Your task to perform on an android device: toggle wifi Image 0: 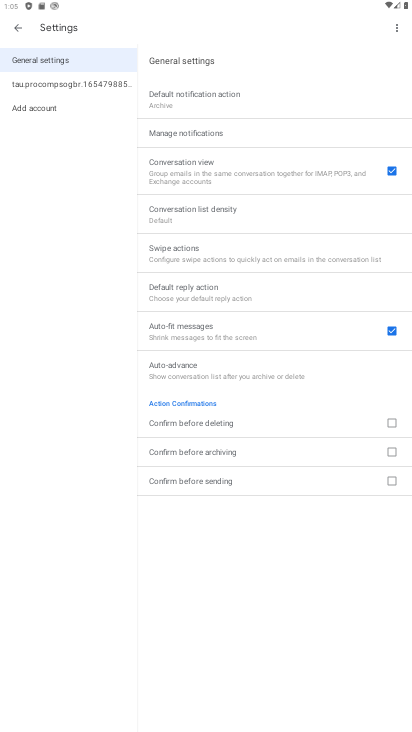
Step 0: press home button
Your task to perform on an android device: toggle wifi Image 1: 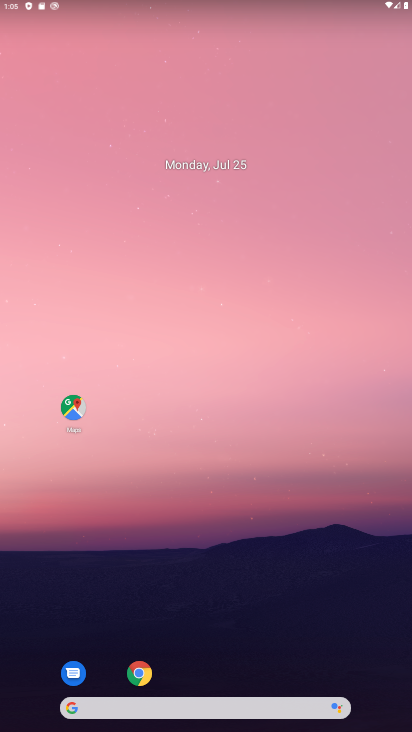
Step 1: drag from (372, 679) to (311, 177)
Your task to perform on an android device: toggle wifi Image 2: 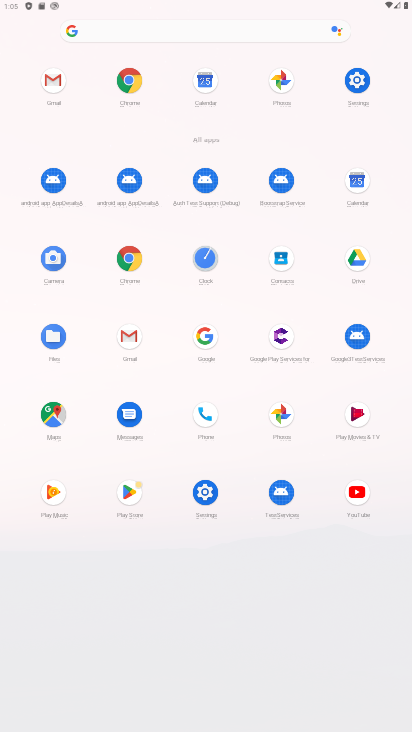
Step 2: click (203, 492)
Your task to perform on an android device: toggle wifi Image 3: 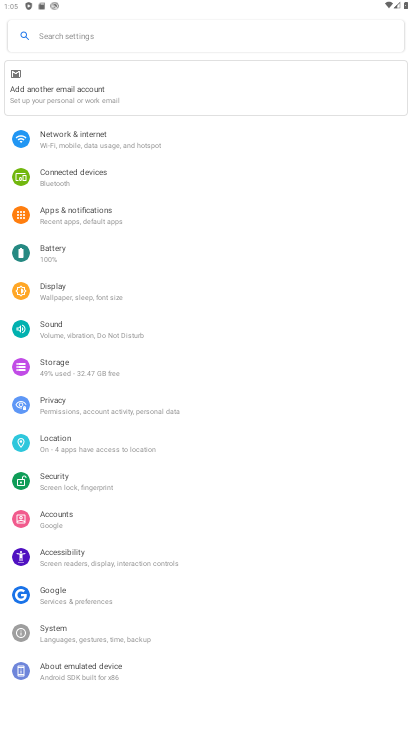
Step 3: click (60, 134)
Your task to perform on an android device: toggle wifi Image 4: 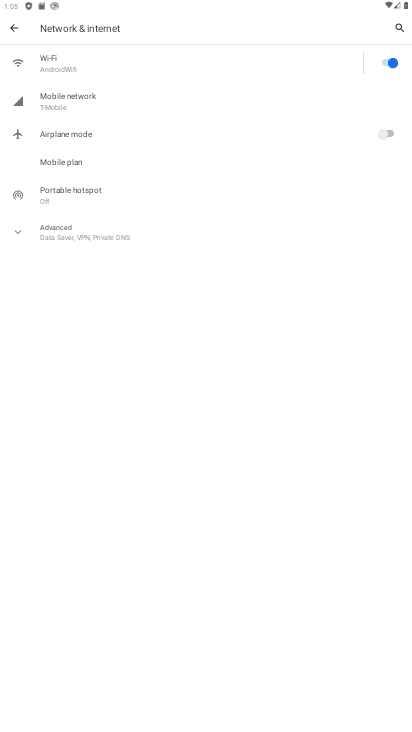
Step 4: click (385, 61)
Your task to perform on an android device: toggle wifi Image 5: 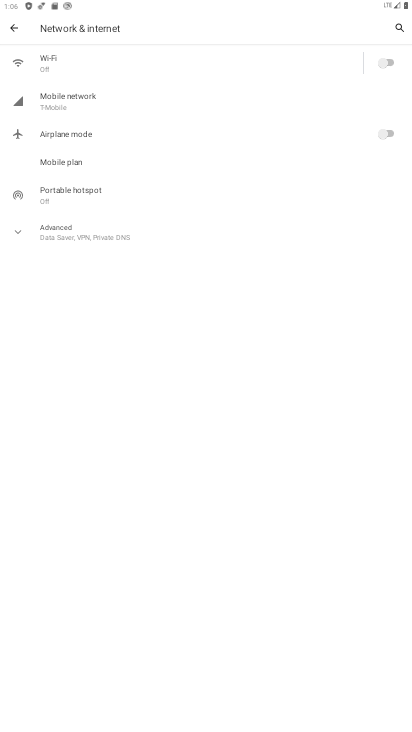
Step 5: task complete